Your task to perform on an android device: find which apps use the phone's location Image 0: 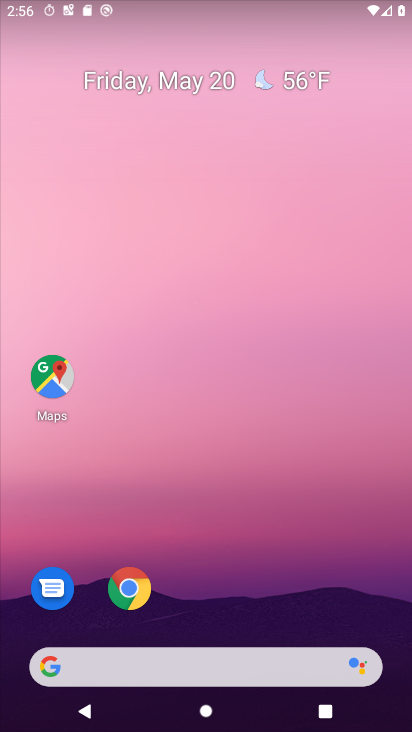
Step 0: drag from (28, 516) to (250, 136)
Your task to perform on an android device: find which apps use the phone's location Image 1: 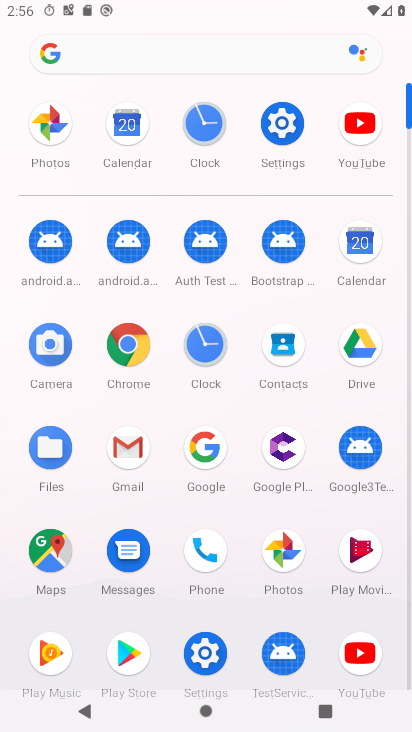
Step 1: click (294, 128)
Your task to perform on an android device: find which apps use the phone's location Image 2: 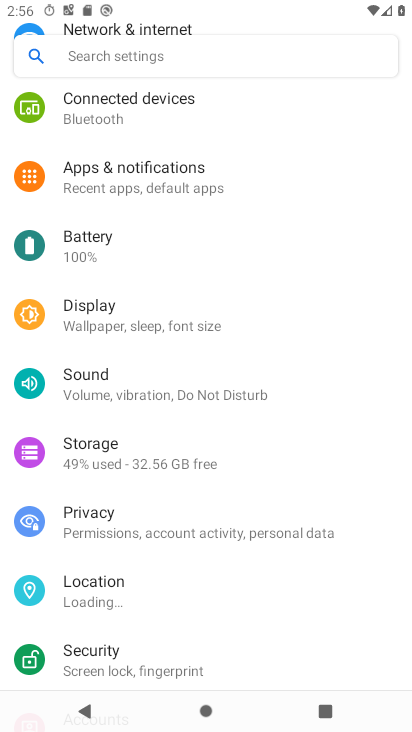
Step 2: click (107, 600)
Your task to perform on an android device: find which apps use the phone's location Image 3: 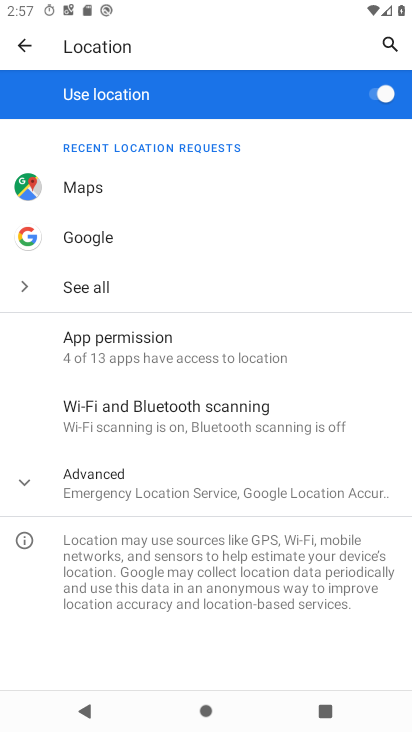
Step 3: click (228, 343)
Your task to perform on an android device: find which apps use the phone's location Image 4: 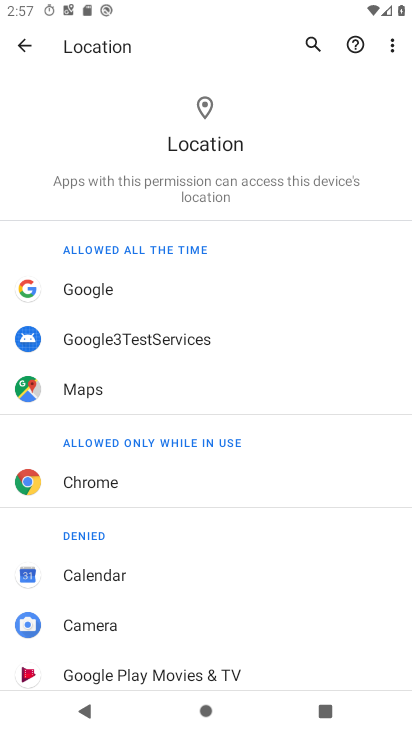
Step 4: task complete